Your task to perform on an android device: check data usage Image 0: 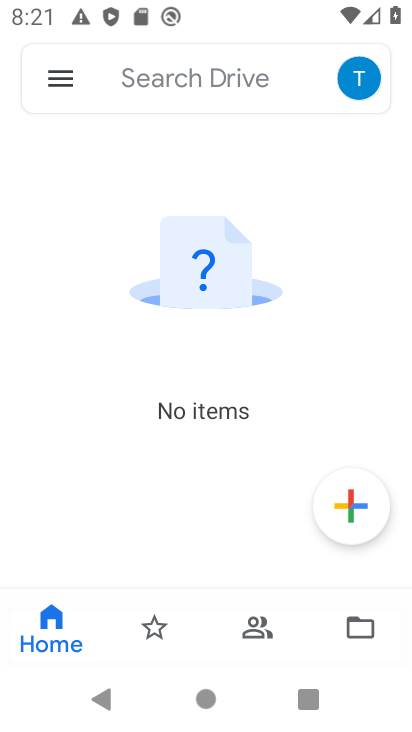
Step 0: press home button
Your task to perform on an android device: check data usage Image 1: 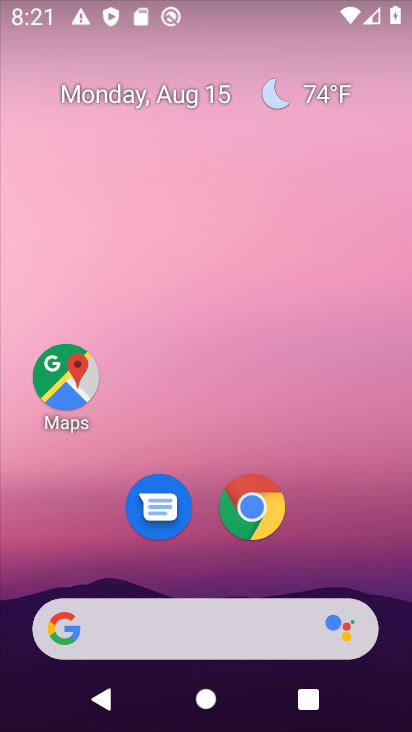
Step 1: drag from (279, 331) to (310, 0)
Your task to perform on an android device: check data usage Image 2: 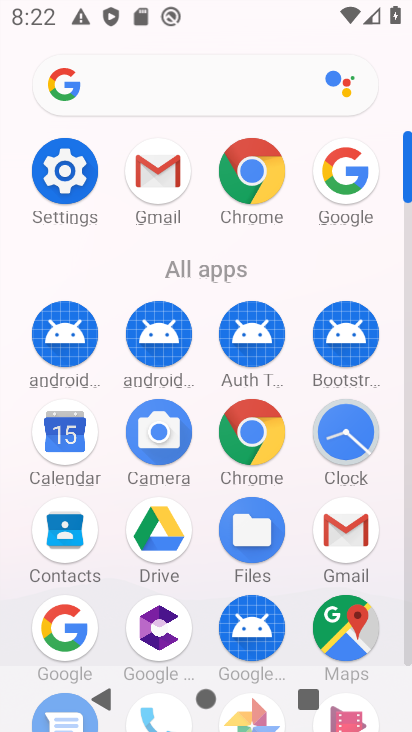
Step 2: click (77, 186)
Your task to perform on an android device: check data usage Image 3: 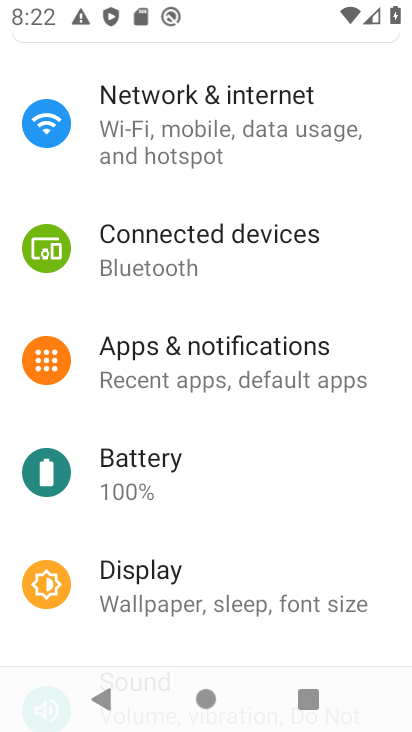
Step 3: click (245, 143)
Your task to perform on an android device: check data usage Image 4: 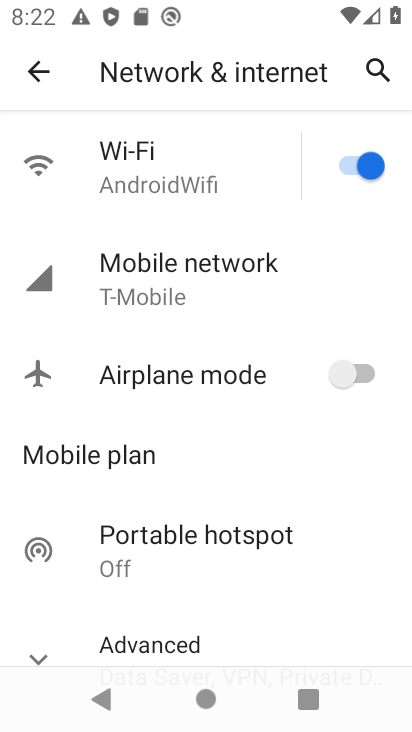
Step 4: click (154, 283)
Your task to perform on an android device: check data usage Image 5: 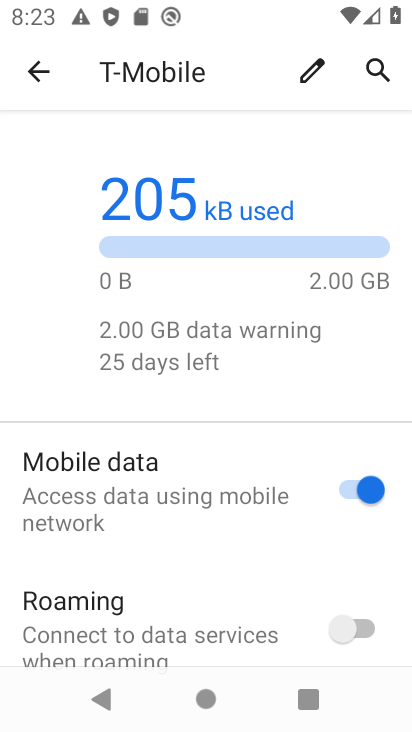
Step 5: task complete